Your task to perform on an android device: move a message to another label in the gmail app Image 0: 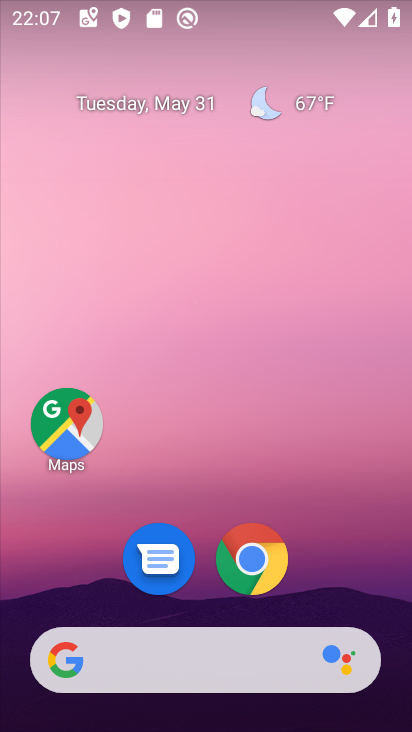
Step 0: drag from (299, 245) to (291, 100)
Your task to perform on an android device: move a message to another label in the gmail app Image 1: 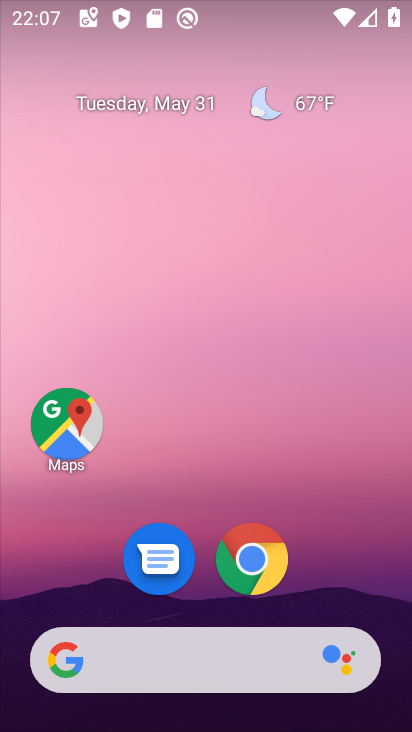
Step 1: drag from (327, 580) to (319, 111)
Your task to perform on an android device: move a message to another label in the gmail app Image 2: 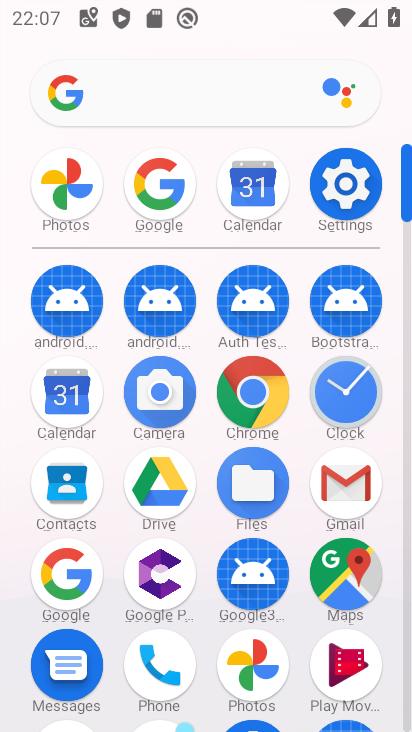
Step 2: click (345, 487)
Your task to perform on an android device: move a message to another label in the gmail app Image 3: 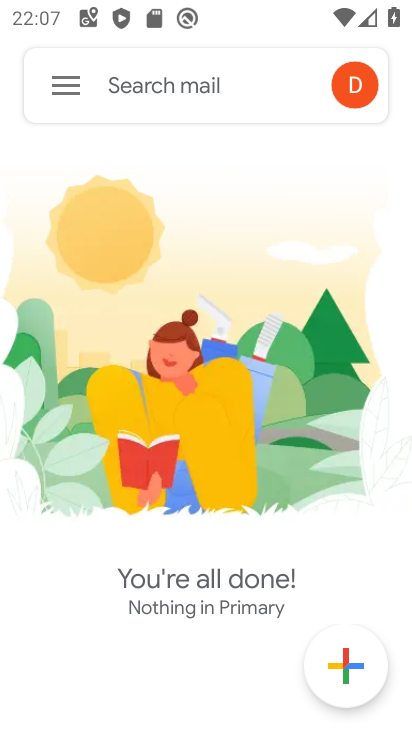
Step 3: click (67, 83)
Your task to perform on an android device: move a message to another label in the gmail app Image 4: 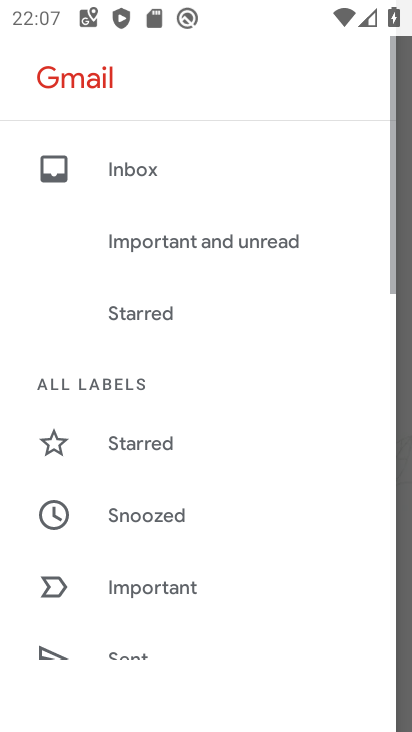
Step 4: drag from (203, 568) to (225, 178)
Your task to perform on an android device: move a message to another label in the gmail app Image 5: 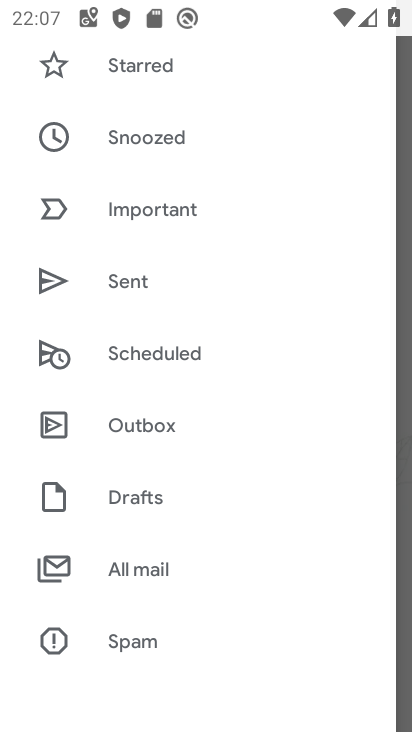
Step 5: click (133, 564)
Your task to perform on an android device: move a message to another label in the gmail app Image 6: 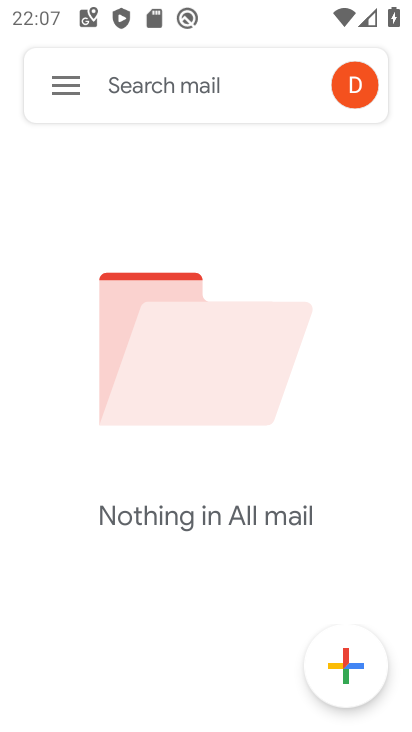
Step 6: task complete